Your task to perform on an android device: read, delete, or share a saved page in the chrome app Image 0: 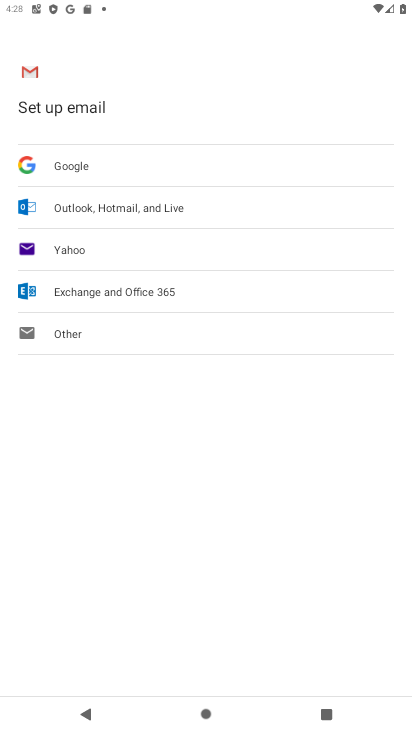
Step 0: press home button
Your task to perform on an android device: read, delete, or share a saved page in the chrome app Image 1: 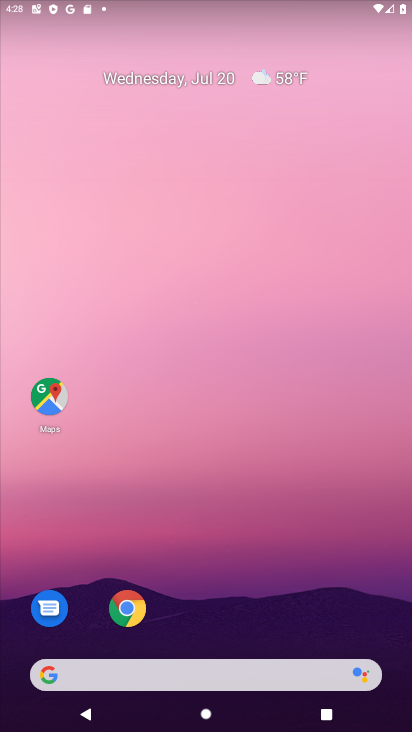
Step 1: click (130, 600)
Your task to perform on an android device: read, delete, or share a saved page in the chrome app Image 2: 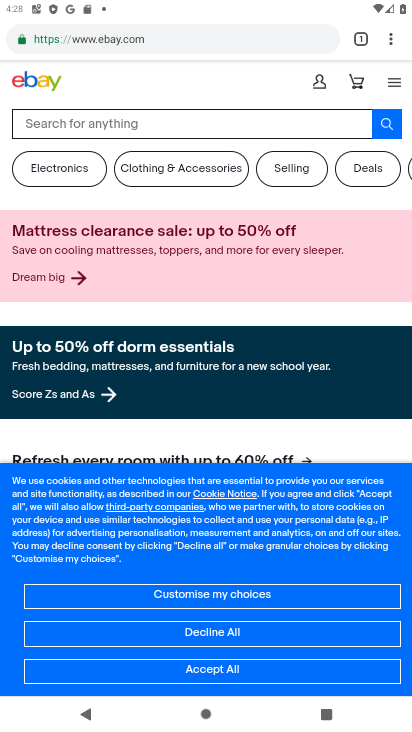
Step 2: click (395, 39)
Your task to perform on an android device: read, delete, or share a saved page in the chrome app Image 3: 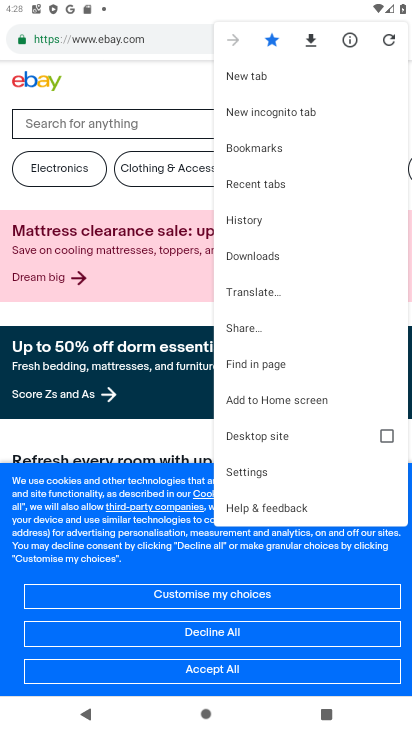
Step 3: click (252, 263)
Your task to perform on an android device: read, delete, or share a saved page in the chrome app Image 4: 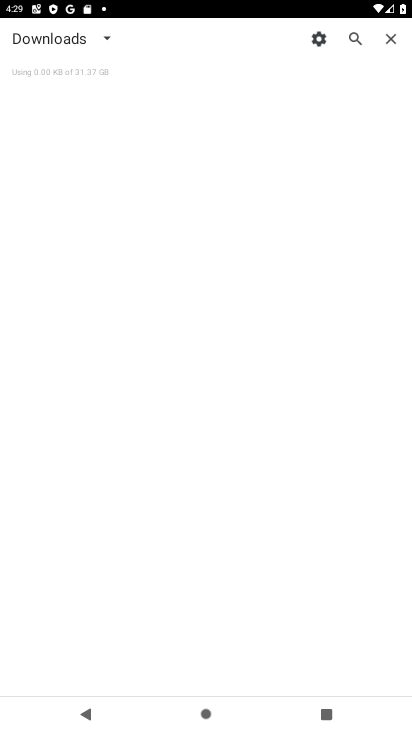
Step 4: task complete